Your task to perform on an android device: Go to Reddit.com Image 0: 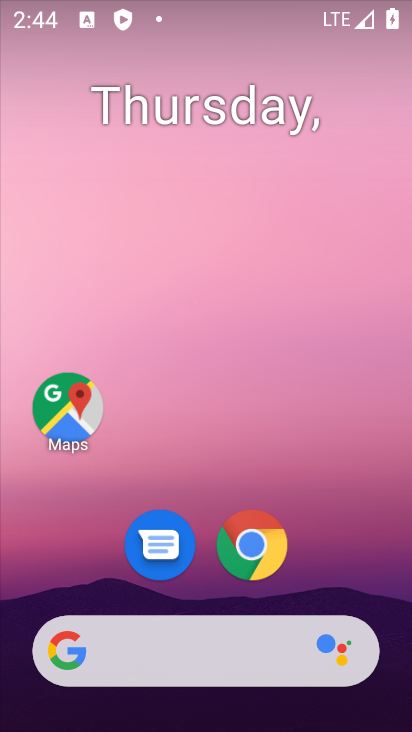
Step 0: drag from (320, 619) to (346, 69)
Your task to perform on an android device: Go to Reddit.com Image 1: 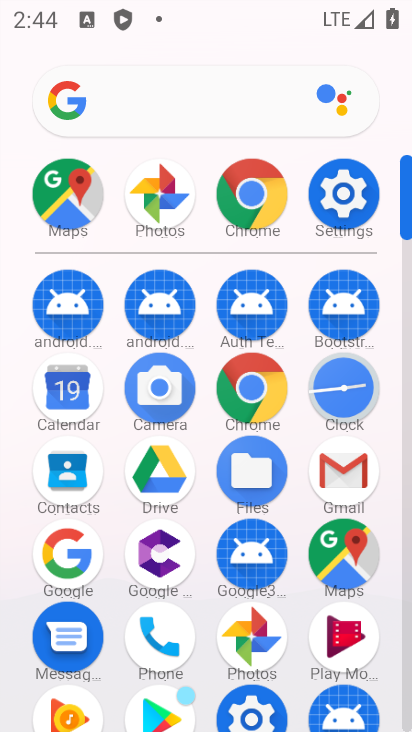
Step 1: click (272, 390)
Your task to perform on an android device: Go to Reddit.com Image 2: 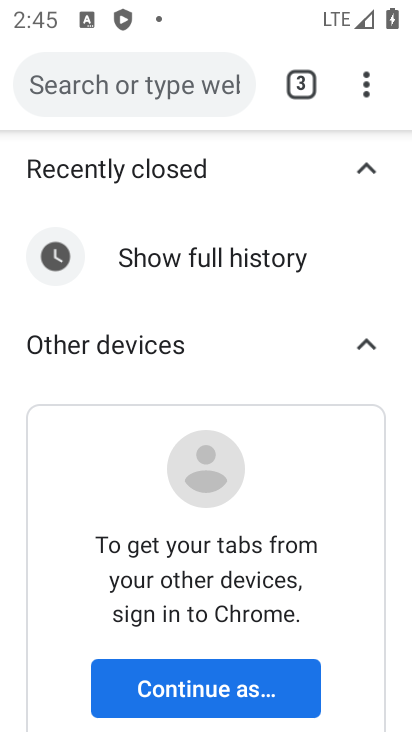
Step 2: click (161, 100)
Your task to perform on an android device: Go to Reddit.com Image 3: 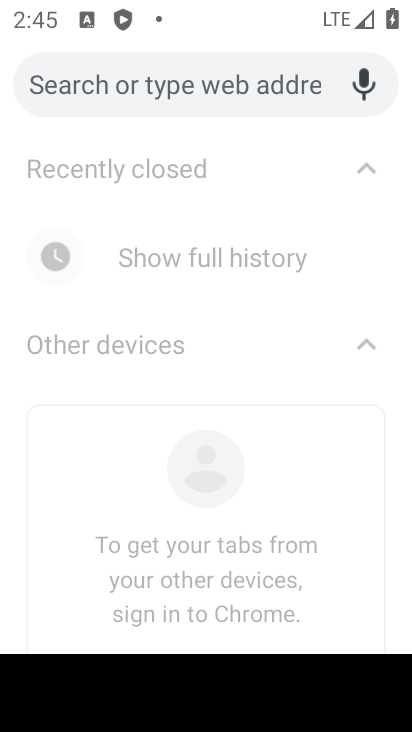
Step 3: type "reddit.com"
Your task to perform on an android device: Go to Reddit.com Image 4: 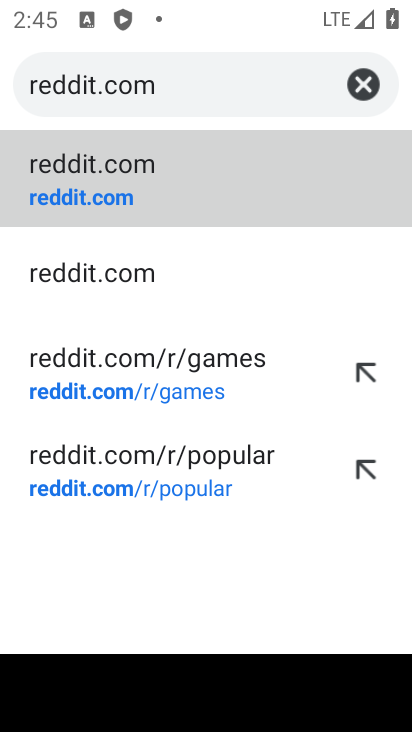
Step 4: click (227, 200)
Your task to perform on an android device: Go to Reddit.com Image 5: 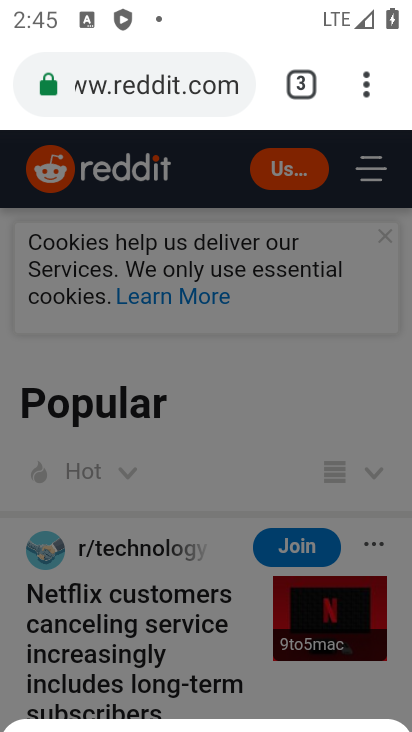
Step 5: task complete